Your task to perform on an android device: Open Google Chrome and open the bookmarks view Image 0: 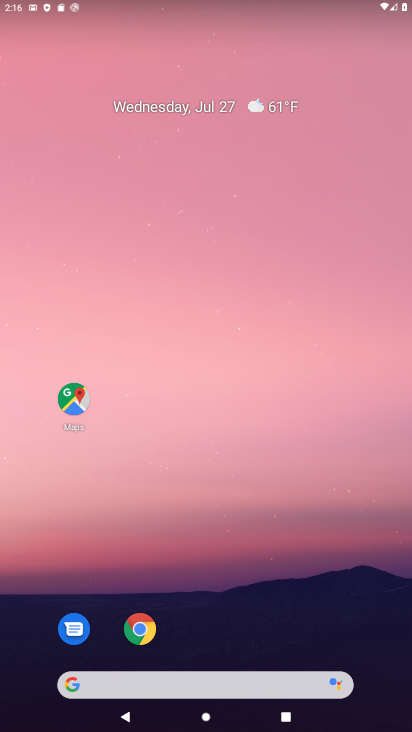
Step 0: drag from (288, 597) to (268, 112)
Your task to perform on an android device: Open Google Chrome and open the bookmarks view Image 1: 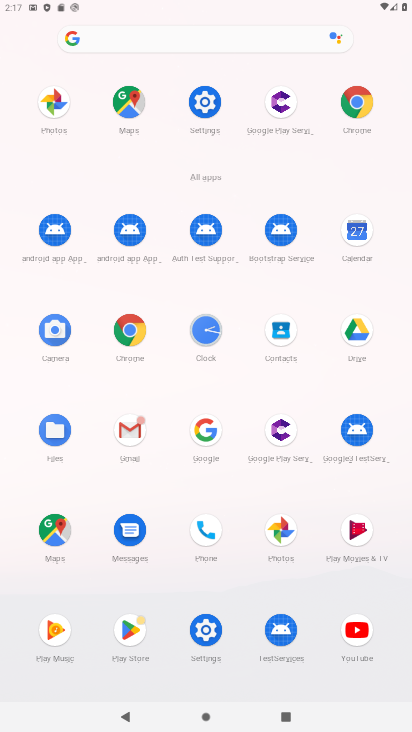
Step 1: click (126, 329)
Your task to perform on an android device: Open Google Chrome and open the bookmarks view Image 2: 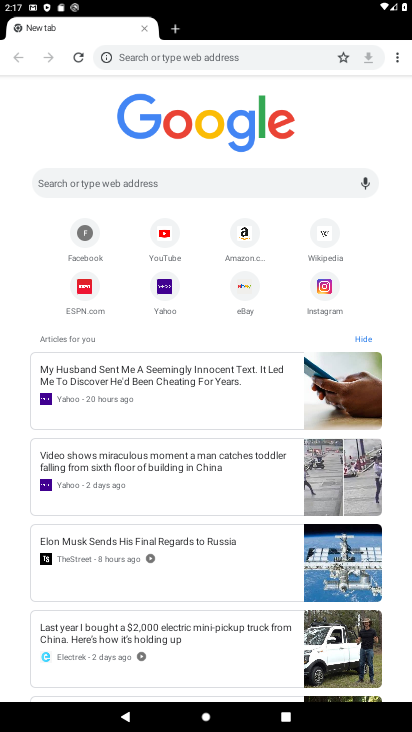
Step 2: drag from (399, 55) to (280, 259)
Your task to perform on an android device: Open Google Chrome and open the bookmarks view Image 3: 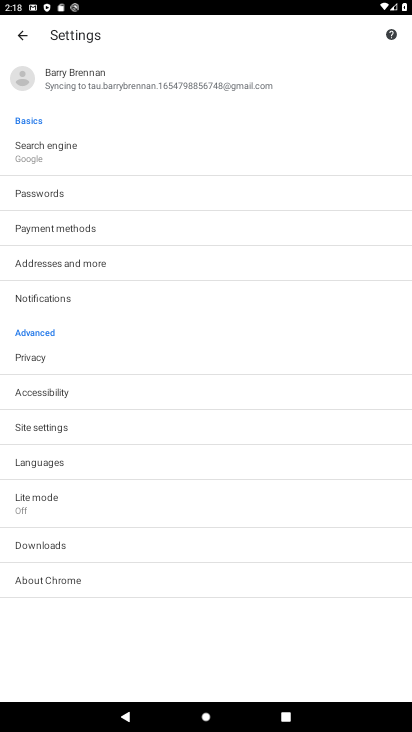
Step 3: press home button
Your task to perform on an android device: Open Google Chrome and open the bookmarks view Image 4: 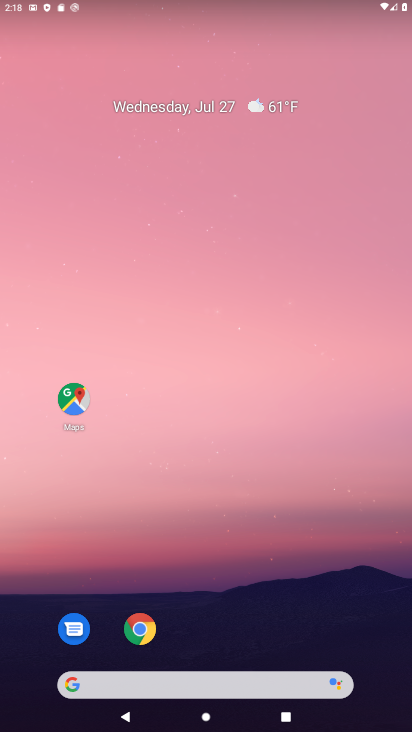
Step 4: drag from (325, 540) to (337, 62)
Your task to perform on an android device: Open Google Chrome and open the bookmarks view Image 5: 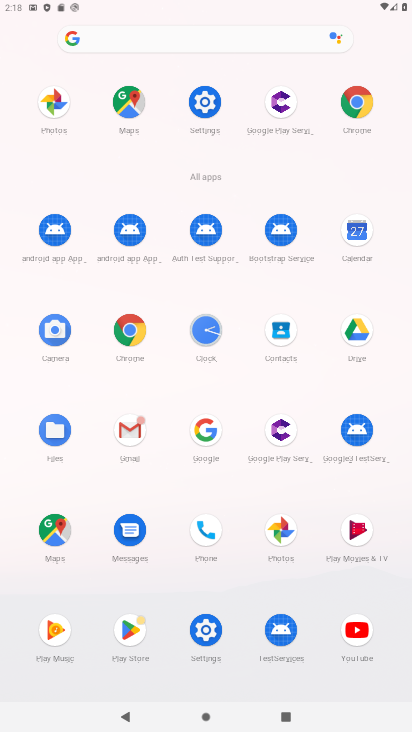
Step 5: click (360, 113)
Your task to perform on an android device: Open Google Chrome and open the bookmarks view Image 6: 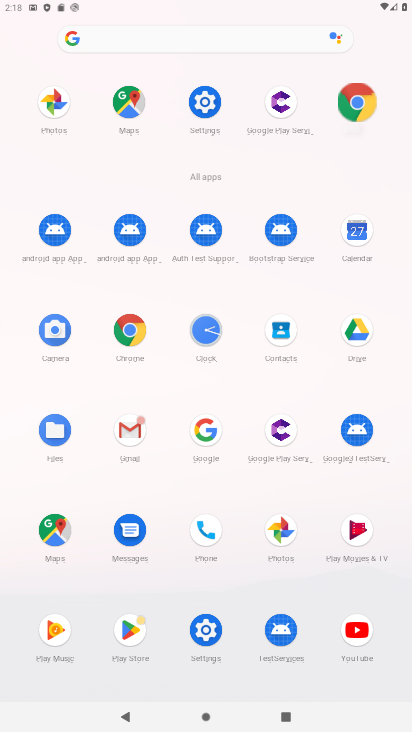
Step 6: click (360, 113)
Your task to perform on an android device: Open Google Chrome and open the bookmarks view Image 7: 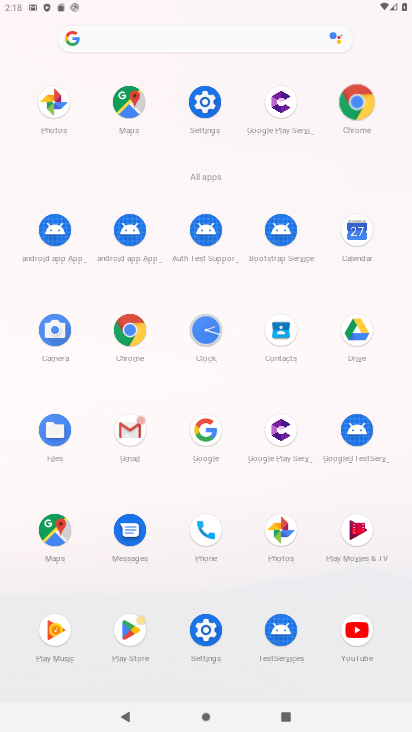
Step 7: click (360, 109)
Your task to perform on an android device: Open Google Chrome and open the bookmarks view Image 8: 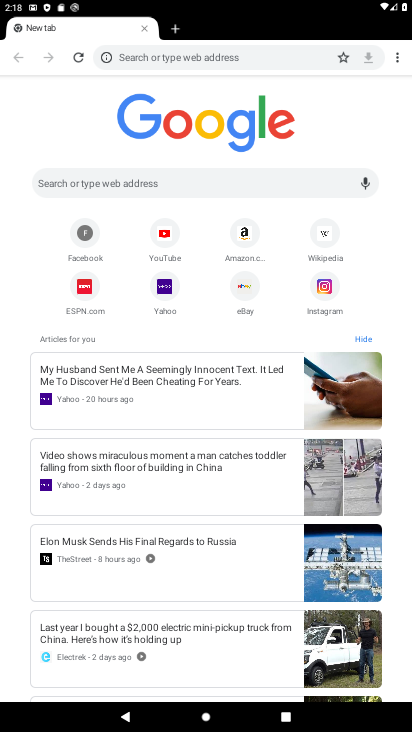
Step 8: task complete